Your task to perform on an android device: Go to notification settings Image 0: 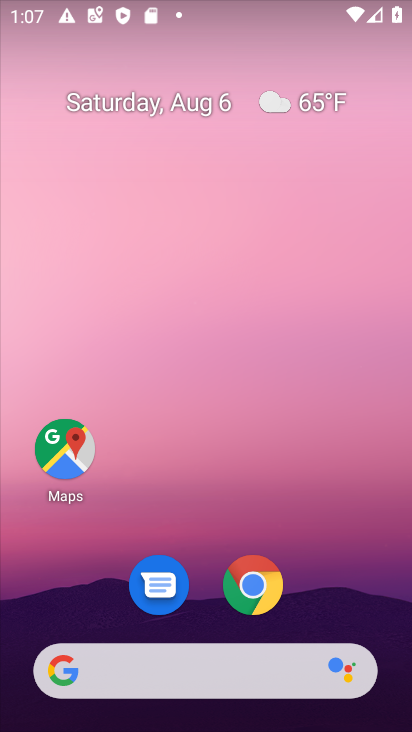
Step 0: drag from (207, 497) to (230, 21)
Your task to perform on an android device: Go to notification settings Image 1: 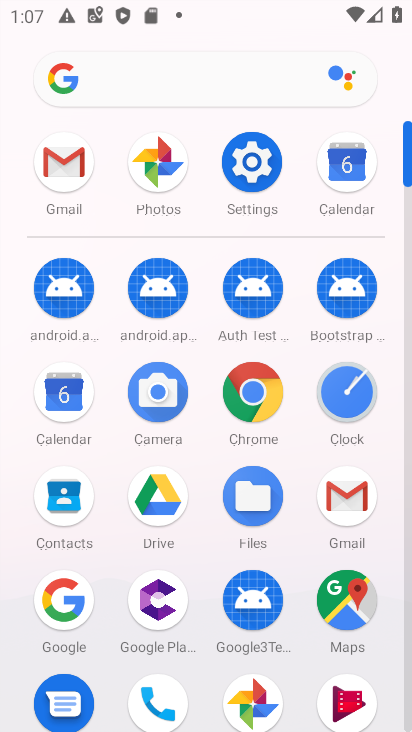
Step 1: click (254, 169)
Your task to perform on an android device: Go to notification settings Image 2: 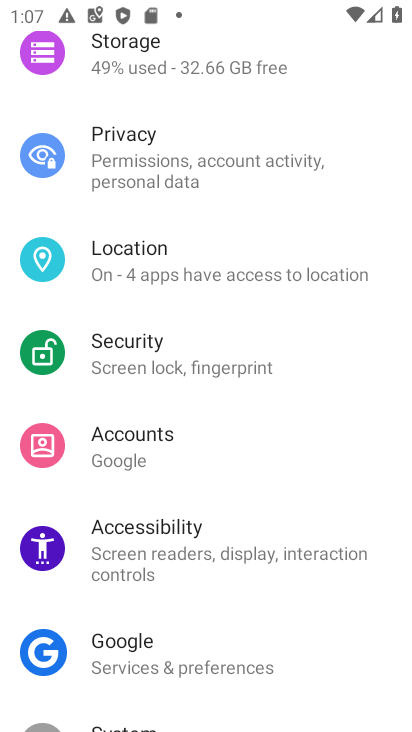
Step 2: drag from (217, 103) to (244, 606)
Your task to perform on an android device: Go to notification settings Image 3: 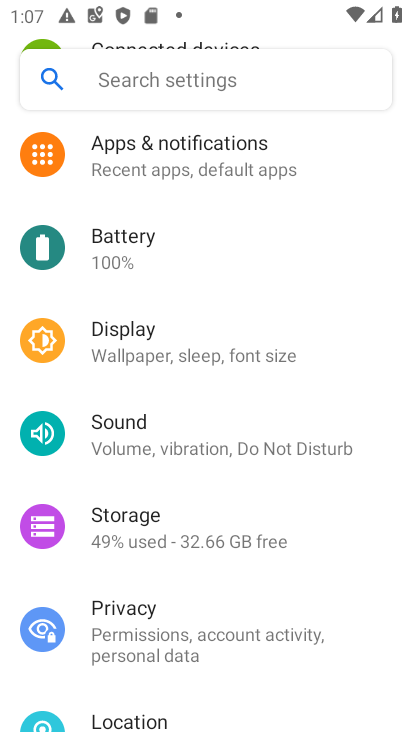
Step 3: click (216, 164)
Your task to perform on an android device: Go to notification settings Image 4: 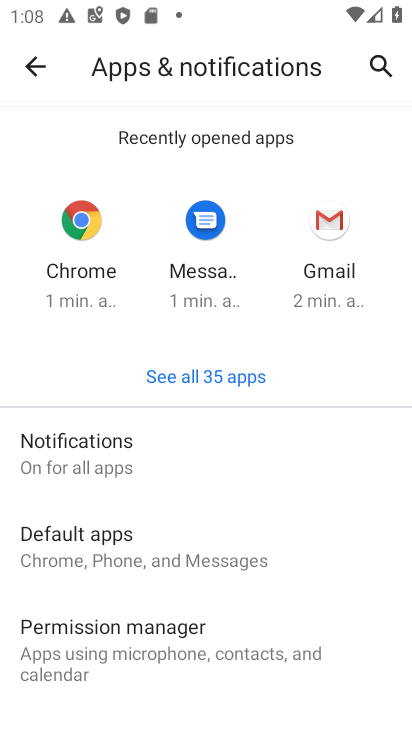
Step 4: click (117, 444)
Your task to perform on an android device: Go to notification settings Image 5: 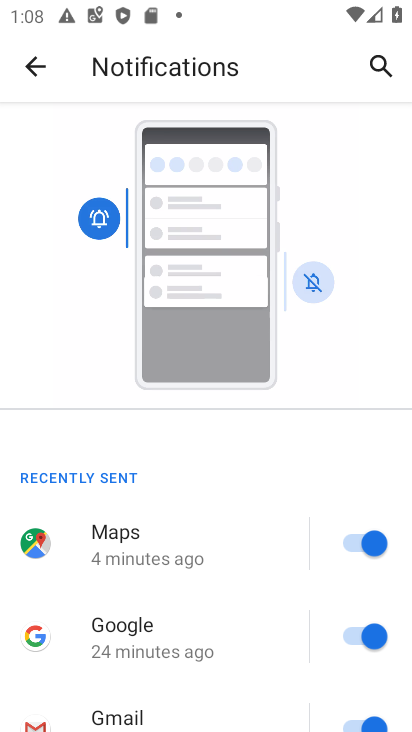
Step 5: task complete